Your task to perform on an android device: see sites visited before in the chrome app Image 0: 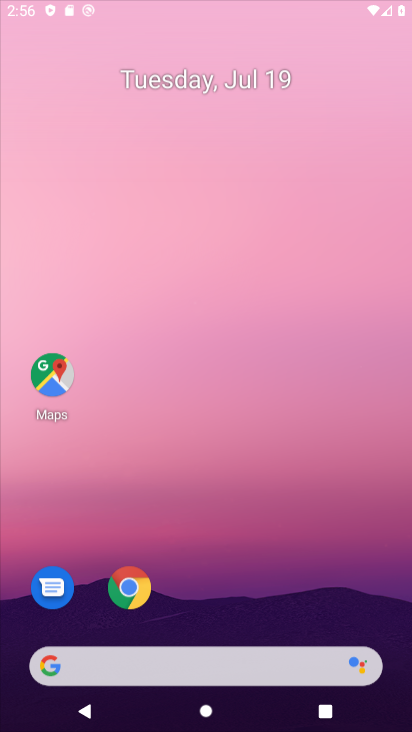
Step 0: click (240, 150)
Your task to perform on an android device: see sites visited before in the chrome app Image 1: 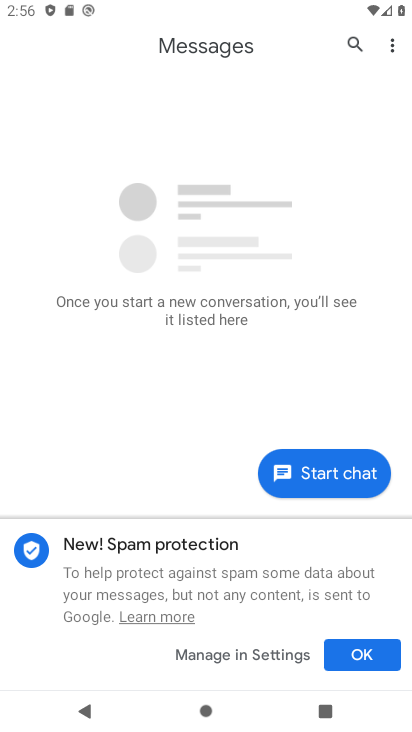
Step 1: press home button
Your task to perform on an android device: see sites visited before in the chrome app Image 2: 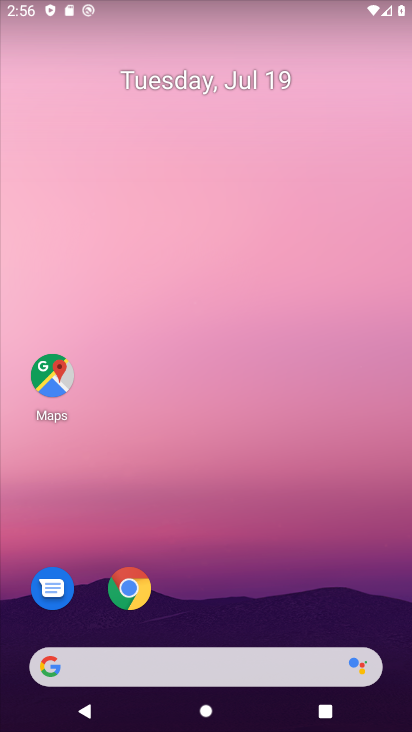
Step 2: click (123, 588)
Your task to perform on an android device: see sites visited before in the chrome app Image 3: 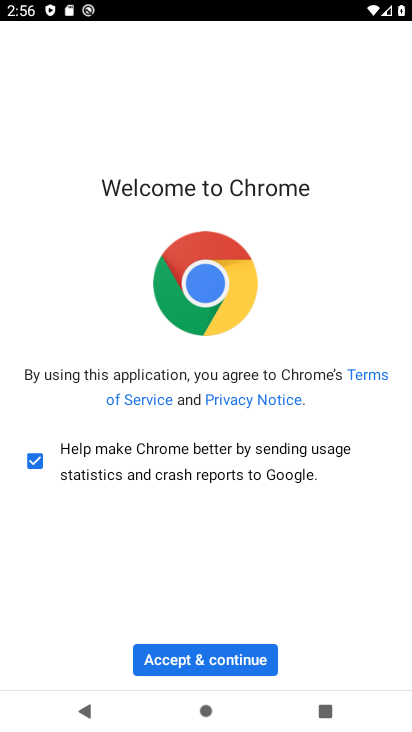
Step 3: click (212, 646)
Your task to perform on an android device: see sites visited before in the chrome app Image 4: 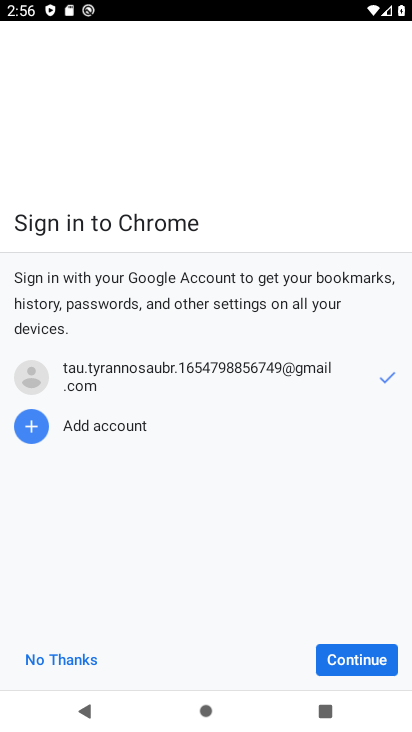
Step 4: click (339, 663)
Your task to perform on an android device: see sites visited before in the chrome app Image 5: 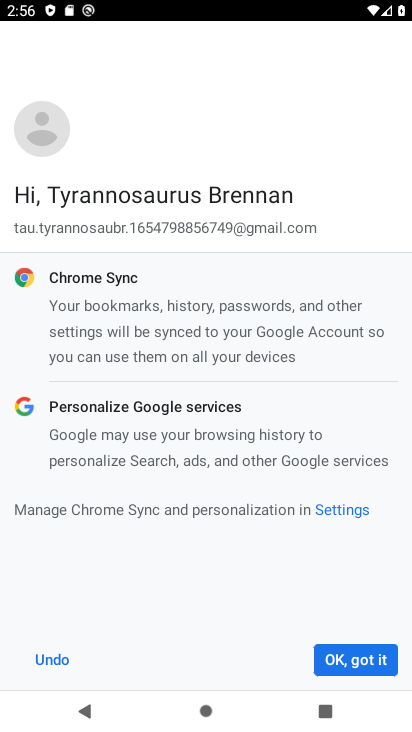
Step 5: click (357, 656)
Your task to perform on an android device: see sites visited before in the chrome app Image 6: 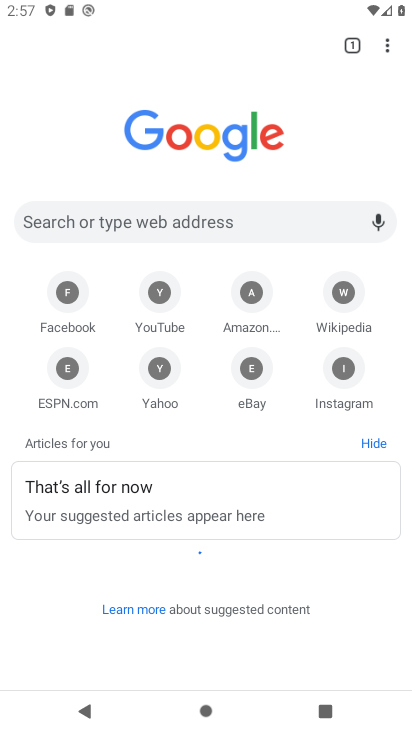
Step 6: click (356, 663)
Your task to perform on an android device: see sites visited before in the chrome app Image 7: 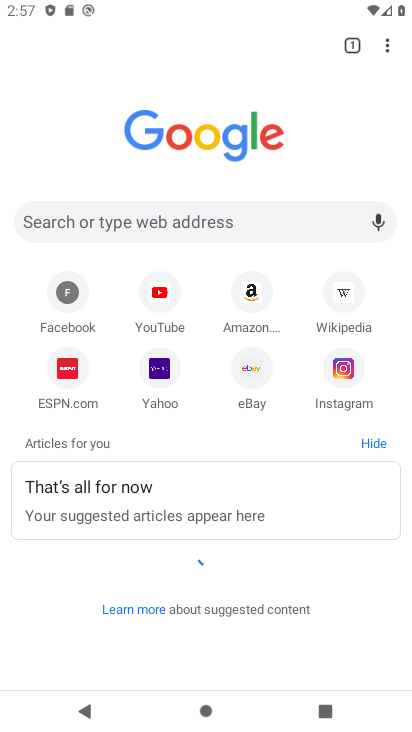
Step 7: click (390, 45)
Your task to perform on an android device: see sites visited before in the chrome app Image 8: 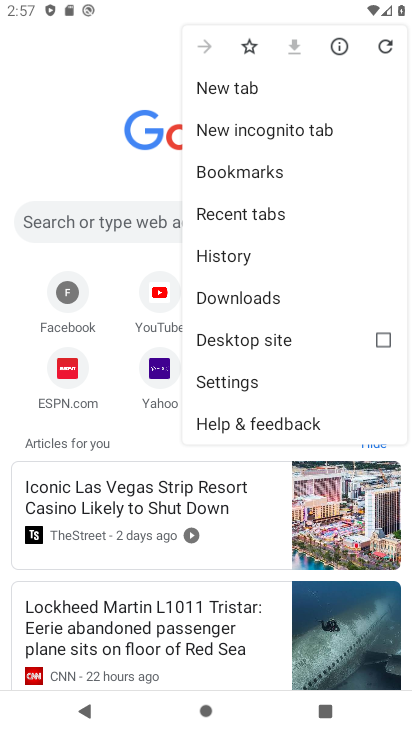
Step 8: click (229, 256)
Your task to perform on an android device: see sites visited before in the chrome app Image 9: 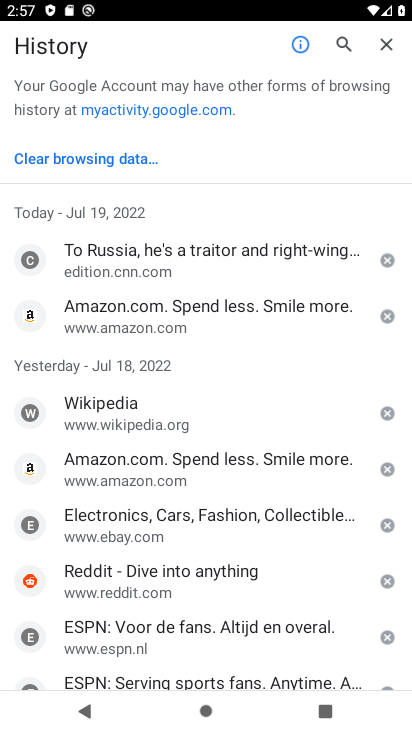
Step 9: task complete